Your task to perform on an android device: remove spam from my inbox in the gmail app Image 0: 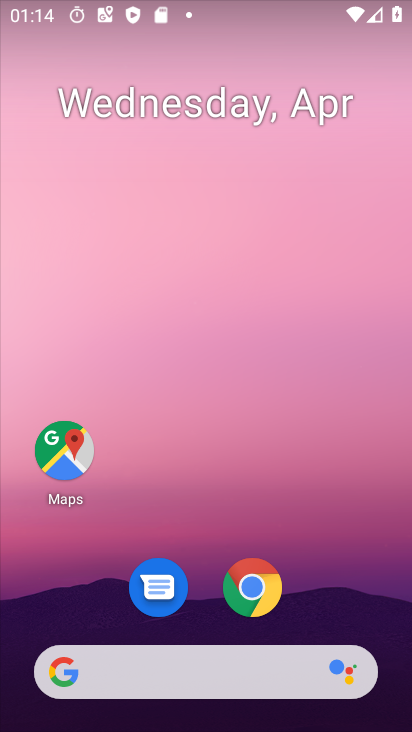
Step 0: drag from (360, 602) to (340, 26)
Your task to perform on an android device: remove spam from my inbox in the gmail app Image 1: 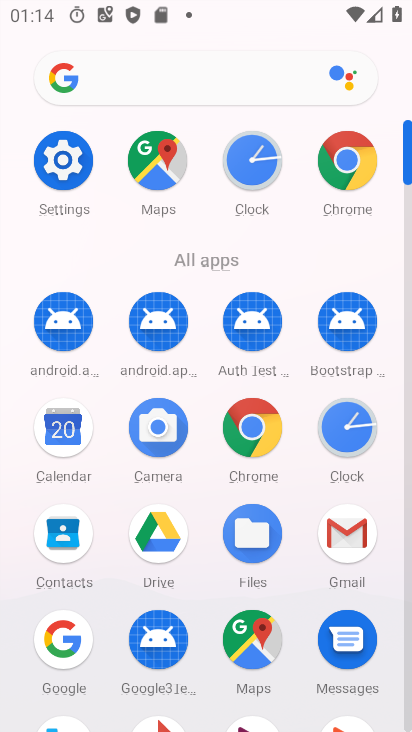
Step 1: click (341, 540)
Your task to perform on an android device: remove spam from my inbox in the gmail app Image 2: 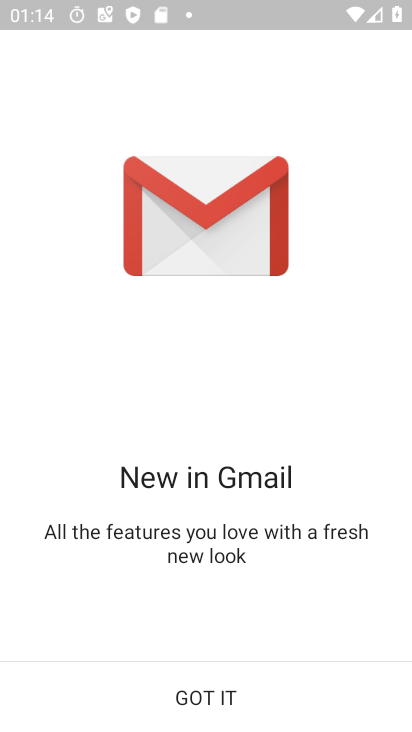
Step 2: click (216, 696)
Your task to perform on an android device: remove spam from my inbox in the gmail app Image 3: 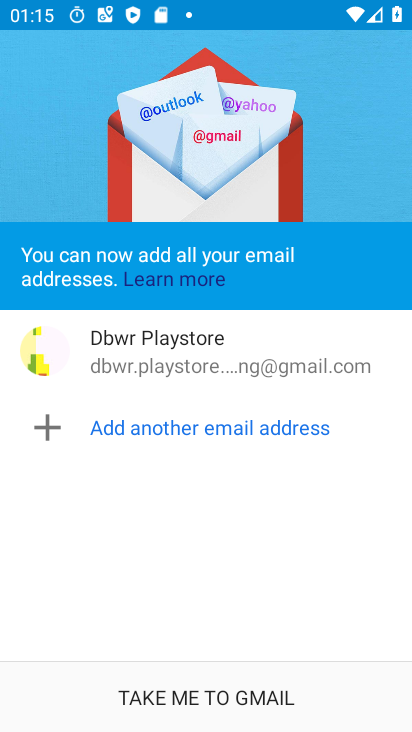
Step 3: click (195, 702)
Your task to perform on an android device: remove spam from my inbox in the gmail app Image 4: 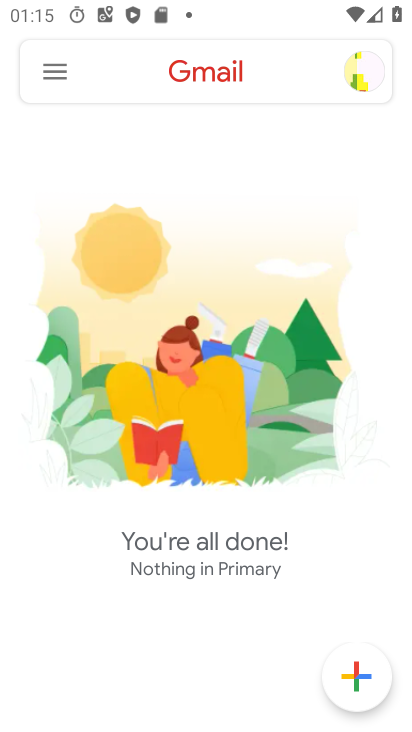
Step 4: click (46, 76)
Your task to perform on an android device: remove spam from my inbox in the gmail app Image 5: 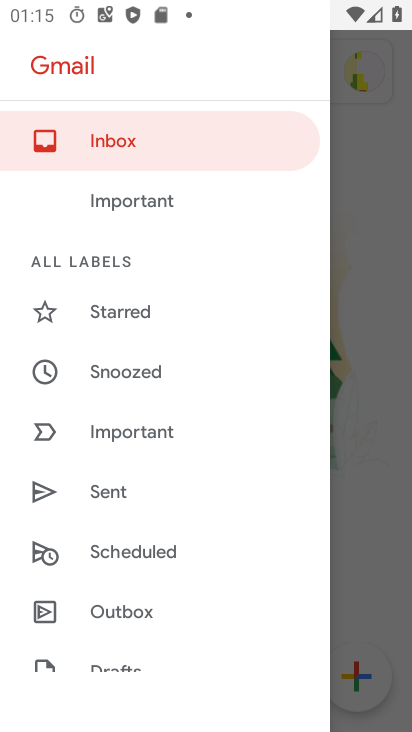
Step 5: drag from (194, 625) to (162, 320)
Your task to perform on an android device: remove spam from my inbox in the gmail app Image 6: 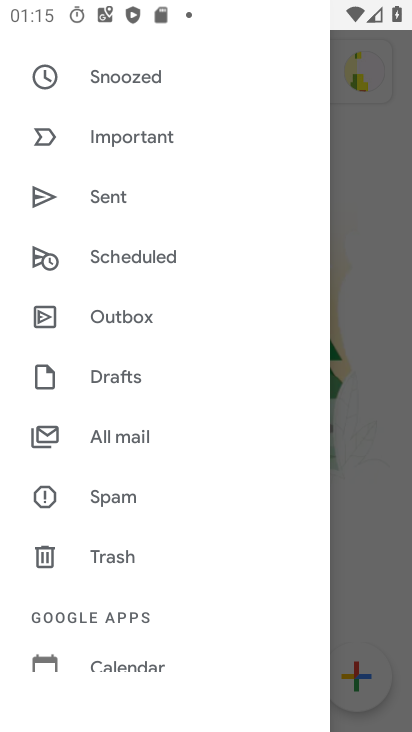
Step 6: click (100, 498)
Your task to perform on an android device: remove spam from my inbox in the gmail app Image 7: 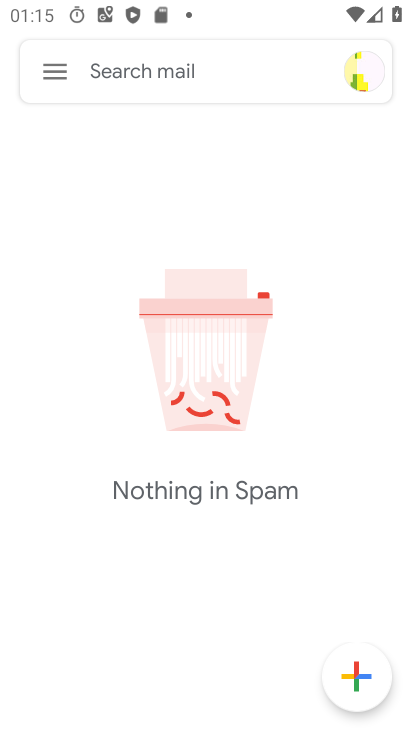
Step 7: task complete